Your task to perform on an android device: toggle airplane mode Image 0: 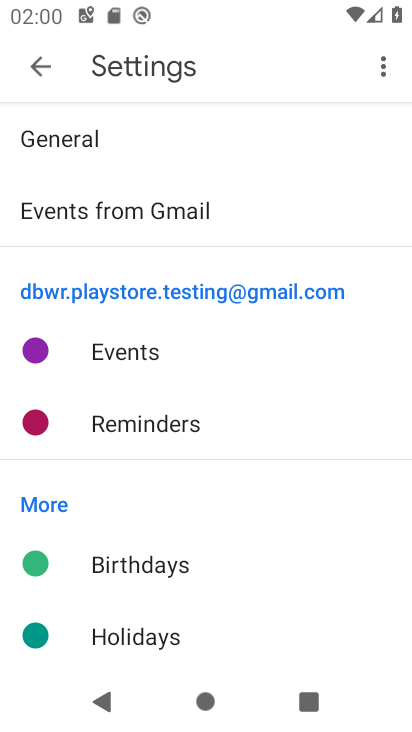
Step 0: press home button
Your task to perform on an android device: toggle airplane mode Image 1: 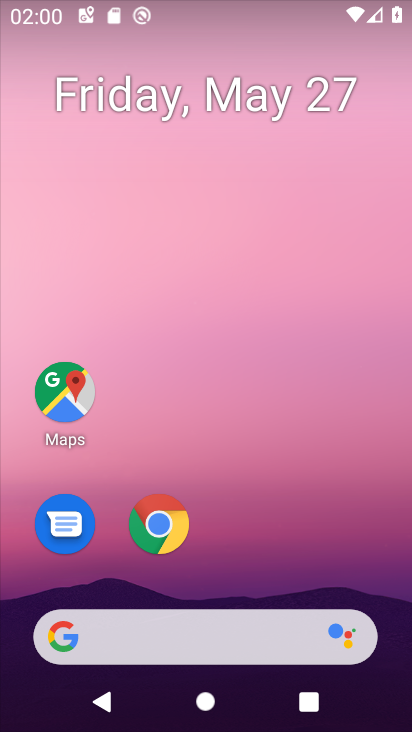
Step 1: drag from (289, 557) to (299, 0)
Your task to perform on an android device: toggle airplane mode Image 2: 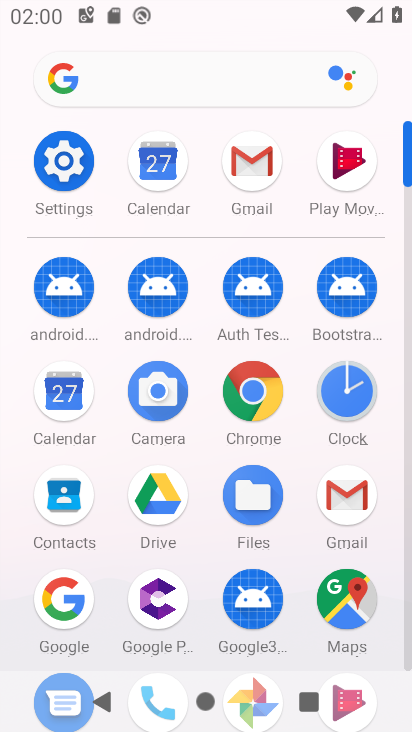
Step 2: click (72, 149)
Your task to perform on an android device: toggle airplane mode Image 3: 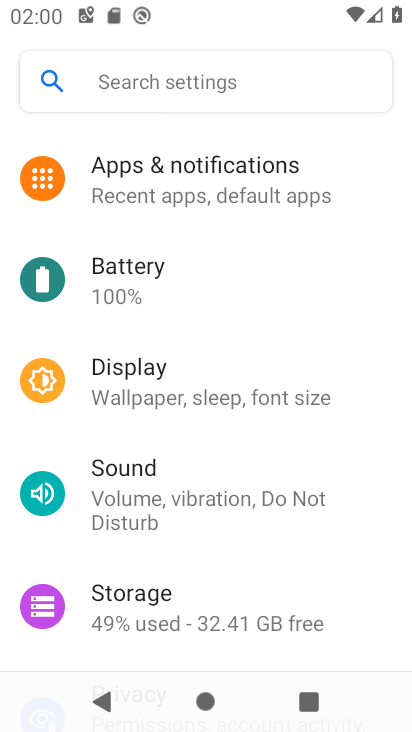
Step 3: drag from (250, 193) to (230, 643)
Your task to perform on an android device: toggle airplane mode Image 4: 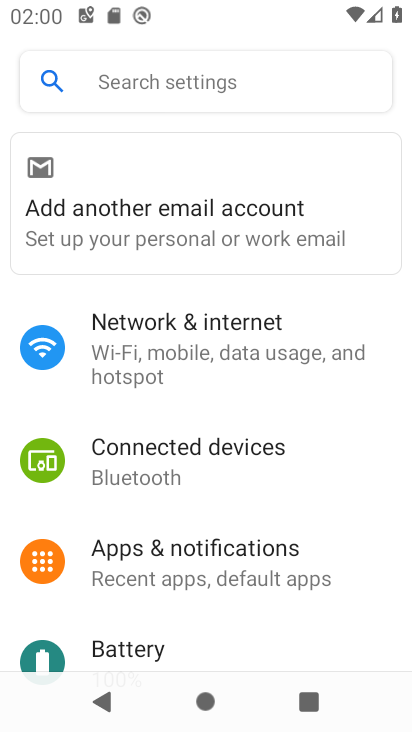
Step 4: click (267, 349)
Your task to perform on an android device: toggle airplane mode Image 5: 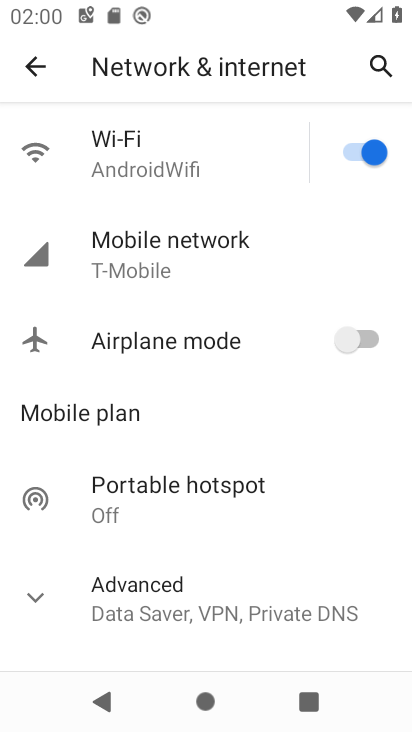
Step 5: click (355, 330)
Your task to perform on an android device: toggle airplane mode Image 6: 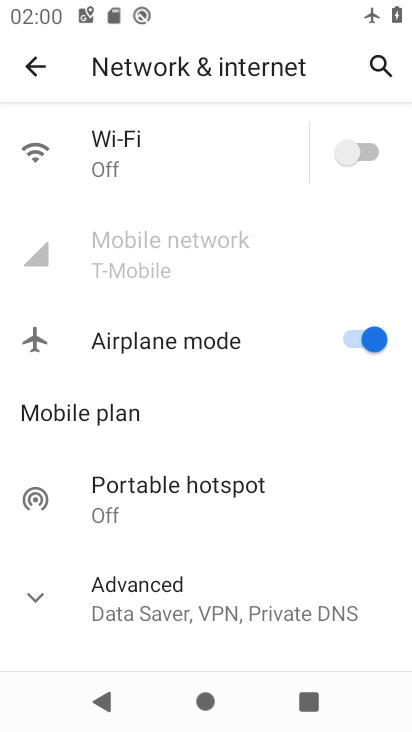
Step 6: task complete